Your task to perform on an android device: Open settings on Google Maps Image 0: 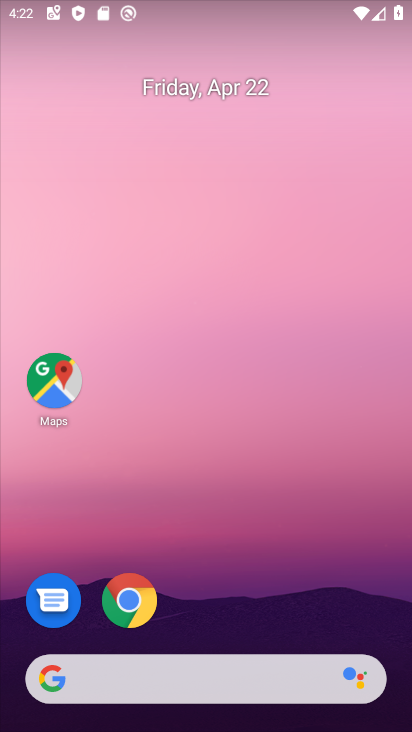
Step 0: press home button
Your task to perform on an android device: Open settings on Google Maps Image 1: 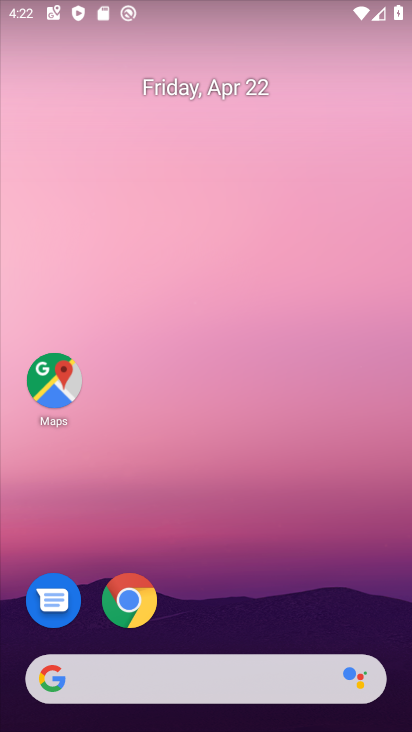
Step 1: drag from (190, 717) to (256, 276)
Your task to perform on an android device: Open settings on Google Maps Image 2: 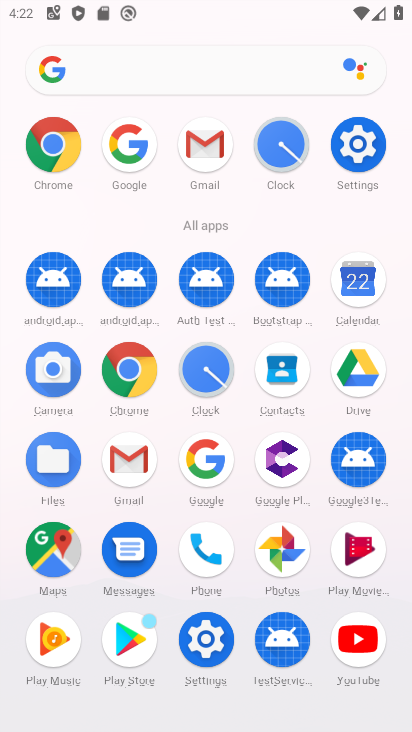
Step 2: click (38, 569)
Your task to perform on an android device: Open settings on Google Maps Image 3: 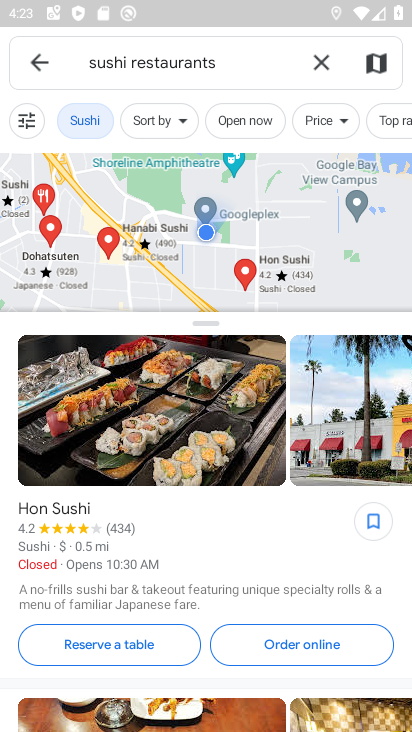
Step 3: click (37, 59)
Your task to perform on an android device: Open settings on Google Maps Image 4: 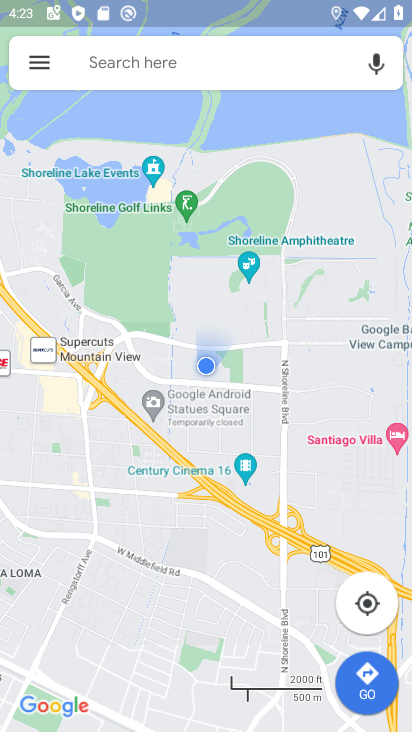
Step 4: click (37, 59)
Your task to perform on an android device: Open settings on Google Maps Image 5: 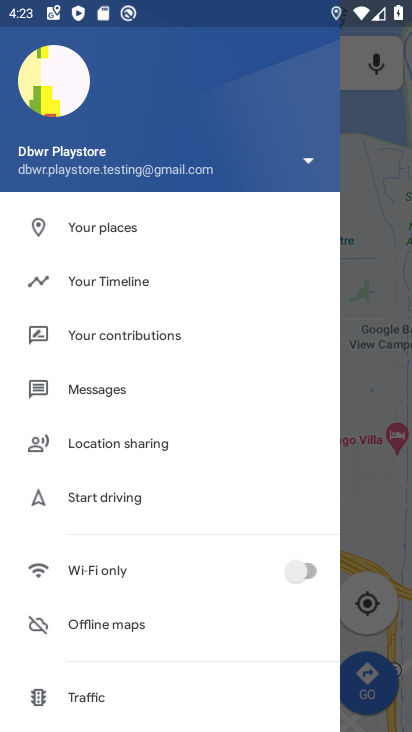
Step 5: drag from (154, 673) to (188, 240)
Your task to perform on an android device: Open settings on Google Maps Image 6: 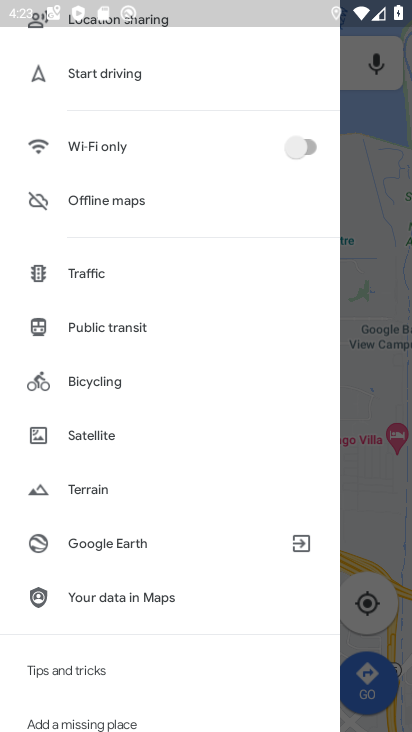
Step 6: drag from (140, 664) to (238, 191)
Your task to perform on an android device: Open settings on Google Maps Image 7: 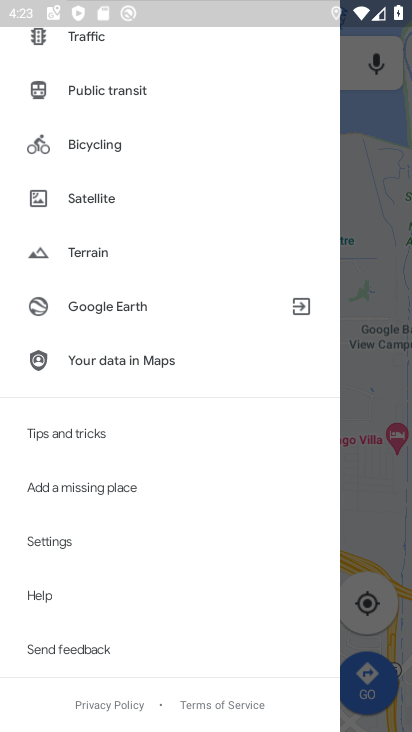
Step 7: click (96, 537)
Your task to perform on an android device: Open settings on Google Maps Image 8: 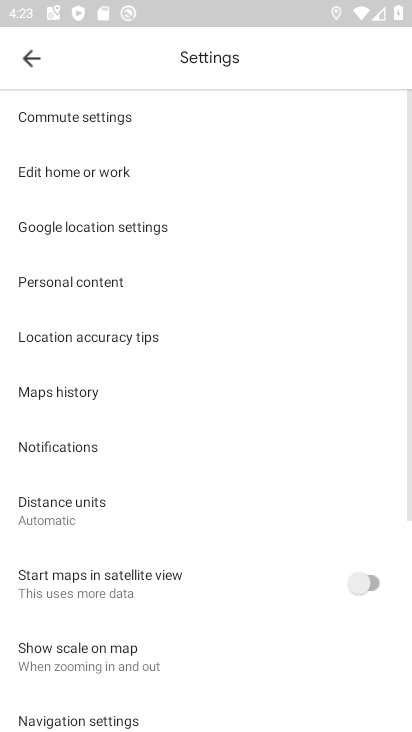
Step 8: task complete